Your task to perform on an android device: refresh tabs in the chrome app Image 0: 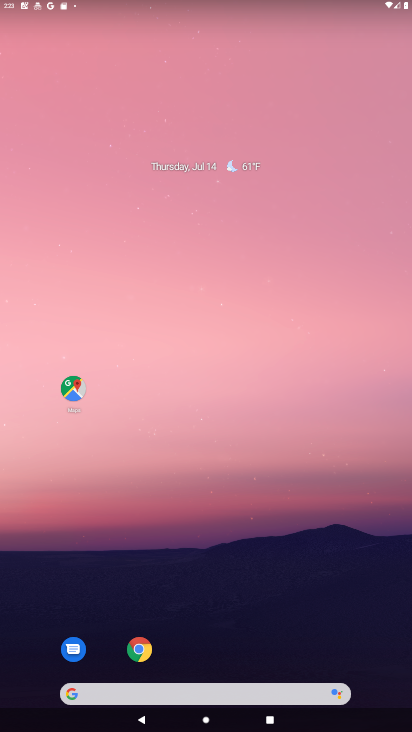
Step 0: drag from (256, 606) to (239, 80)
Your task to perform on an android device: refresh tabs in the chrome app Image 1: 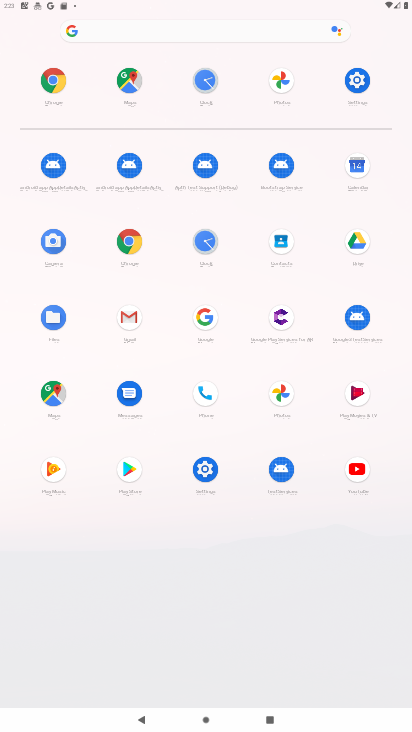
Step 1: click (137, 234)
Your task to perform on an android device: refresh tabs in the chrome app Image 2: 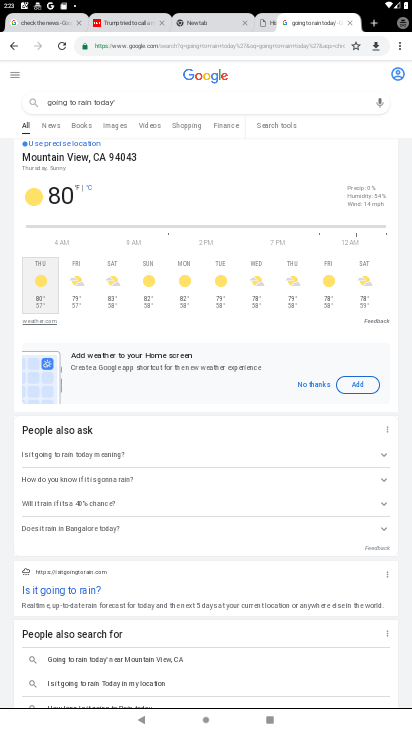
Step 2: drag from (389, 36) to (241, 61)
Your task to perform on an android device: refresh tabs in the chrome app Image 3: 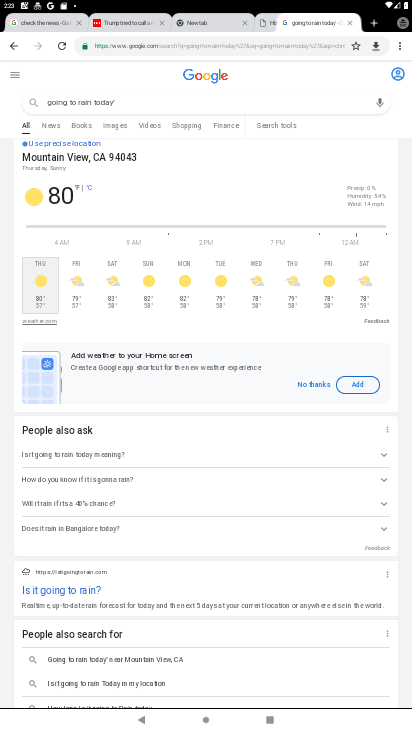
Step 3: click (396, 49)
Your task to perform on an android device: refresh tabs in the chrome app Image 4: 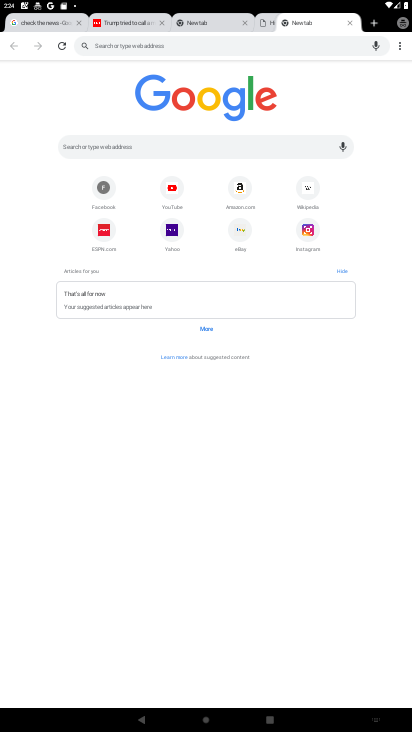
Step 4: task complete